Your task to perform on an android device: turn off sleep mode Image 0: 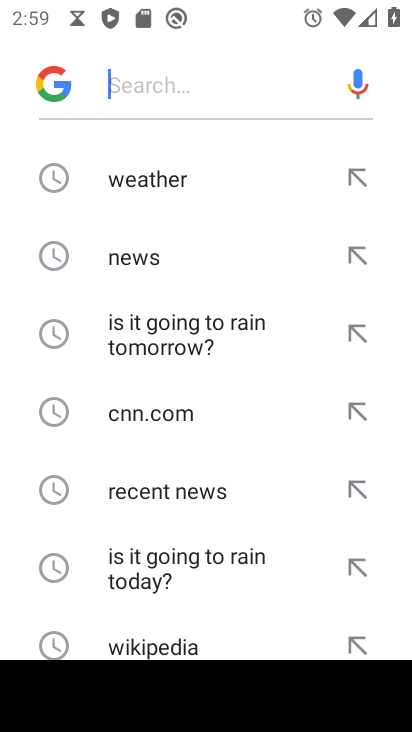
Step 0: press home button
Your task to perform on an android device: turn off sleep mode Image 1: 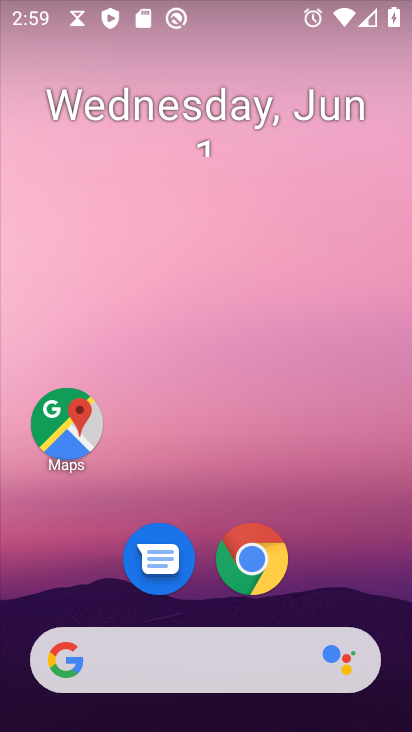
Step 1: drag from (333, 588) to (311, 30)
Your task to perform on an android device: turn off sleep mode Image 2: 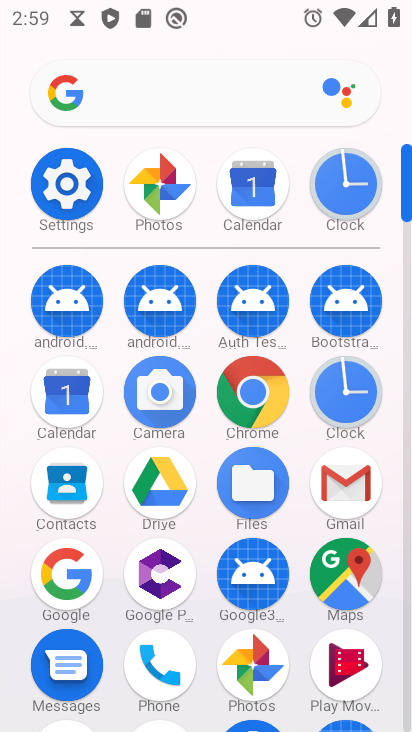
Step 2: click (71, 178)
Your task to perform on an android device: turn off sleep mode Image 3: 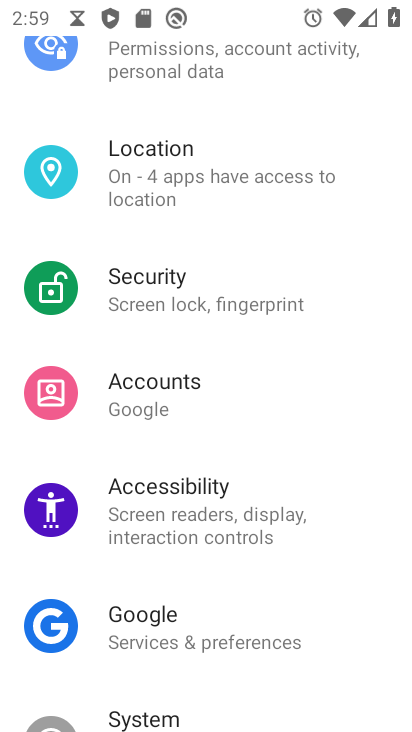
Step 3: drag from (203, 275) to (190, 682)
Your task to perform on an android device: turn off sleep mode Image 4: 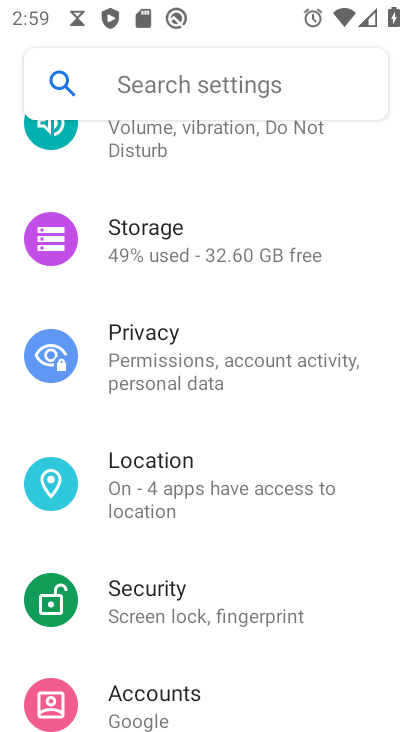
Step 4: drag from (177, 326) to (209, 685)
Your task to perform on an android device: turn off sleep mode Image 5: 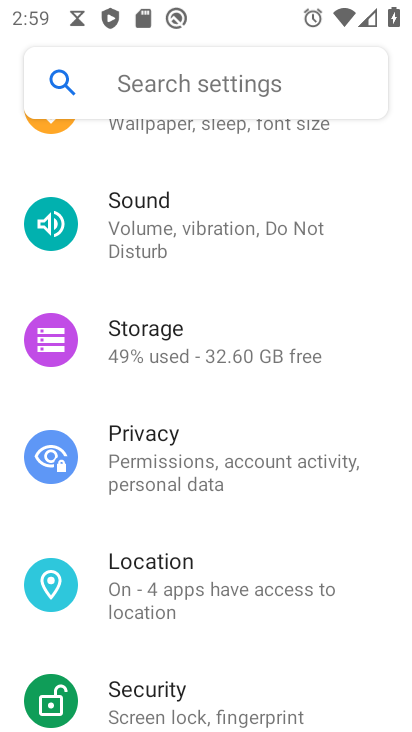
Step 5: drag from (204, 296) to (212, 641)
Your task to perform on an android device: turn off sleep mode Image 6: 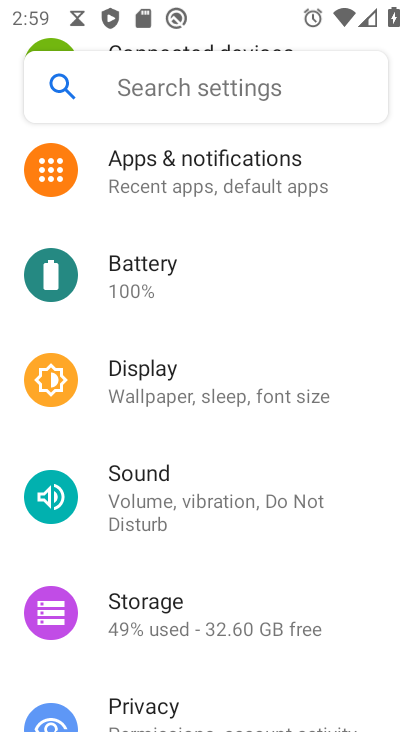
Step 6: click (218, 381)
Your task to perform on an android device: turn off sleep mode Image 7: 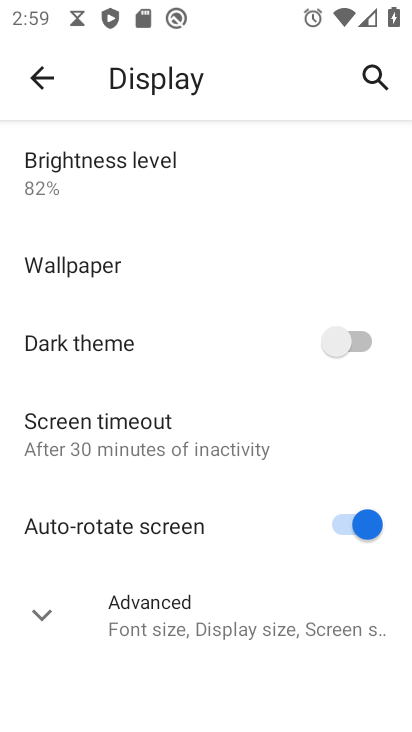
Step 7: click (215, 613)
Your task to perform on an android device: turn off sleep mode Image 8: 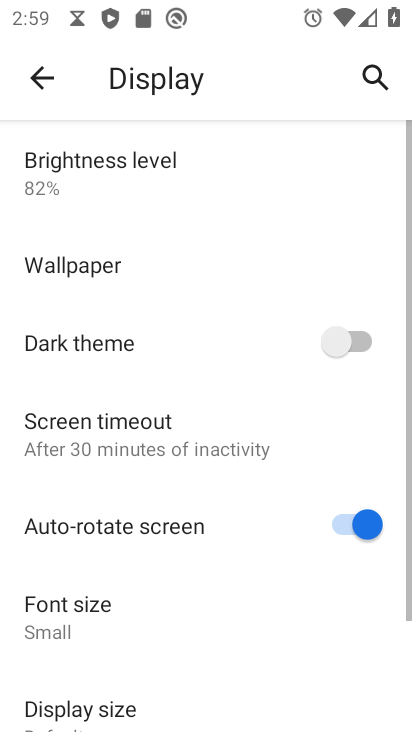
Step 8: task complete